Your task to perform on an android device: clear all cookies in the chrome app Image 0: 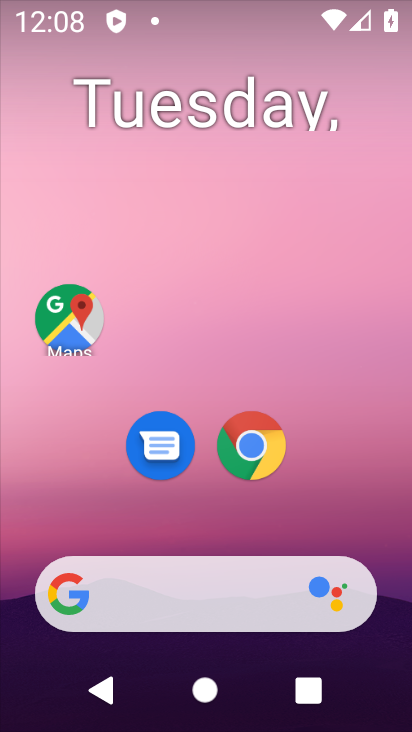
Step 0: drag from (385, 543) to (386, 121)
Your task to perform on an android device: clear all cookies in the chrome app Image 1: 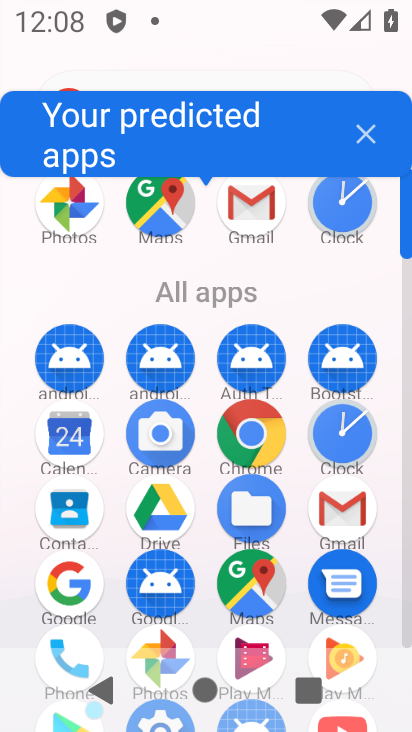
Step 1: click (275, 453)
Your task to perform on an android device: clear all cookies in the chrome app Image 2: 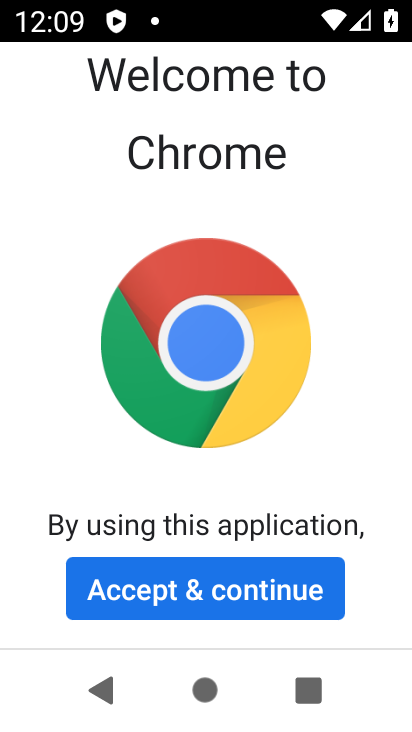
Step 2: click (245, 595)
Your task to perform on an android device: clear all cookies in the chrome app Image 3: 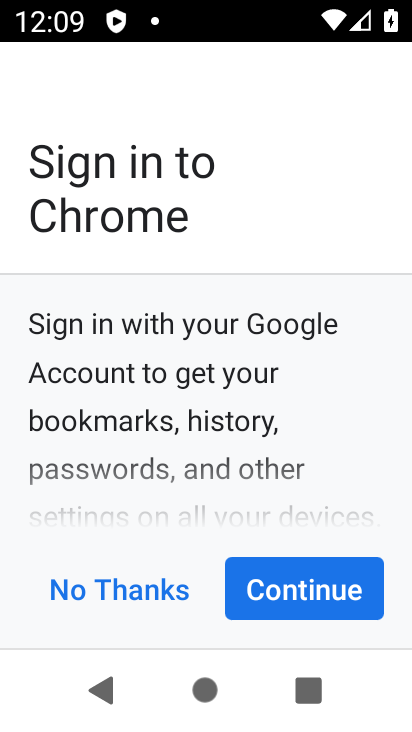
Step 3: click (245, 595)
Your task to perform on an android device: clear all cookies in the chrome app Image 4: 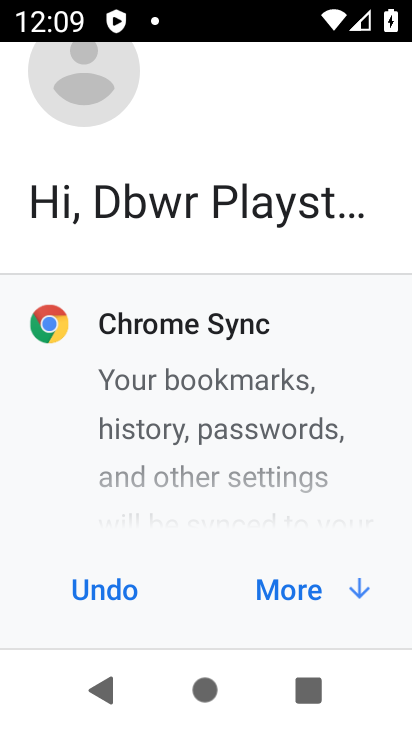
Step 4: click (272, 590)
Your task to perform on an android device: clear all cookies in the chrome app Image 5: 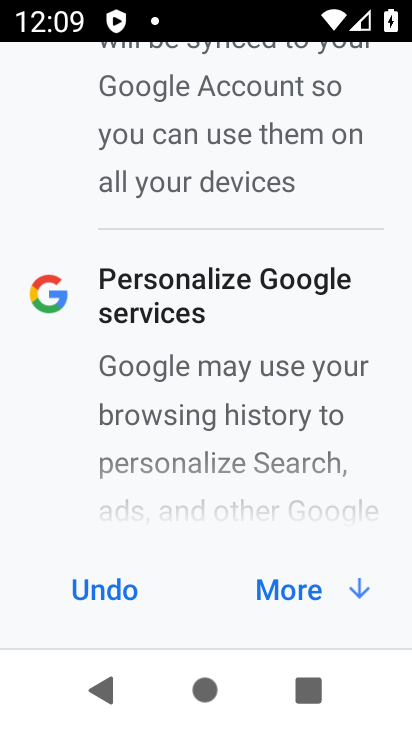
Step 5: click (272, 590)
Your task to perform on an android device: clear all cookies in the chrome app Image 6: 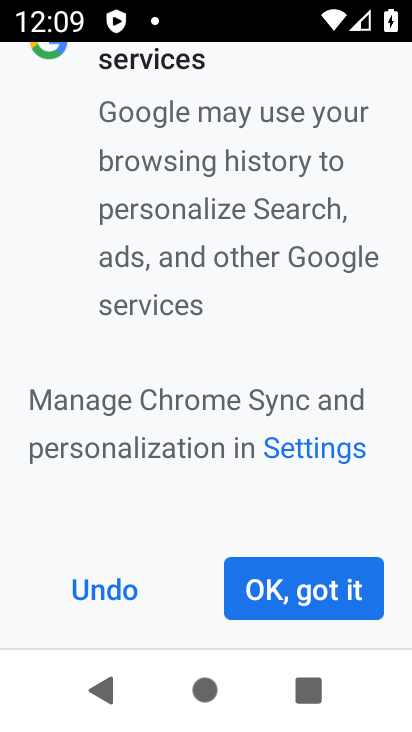
Step 6: click (272, 590)
Your task to perform on an android device: clear all cookies in the chrome app Image 7: 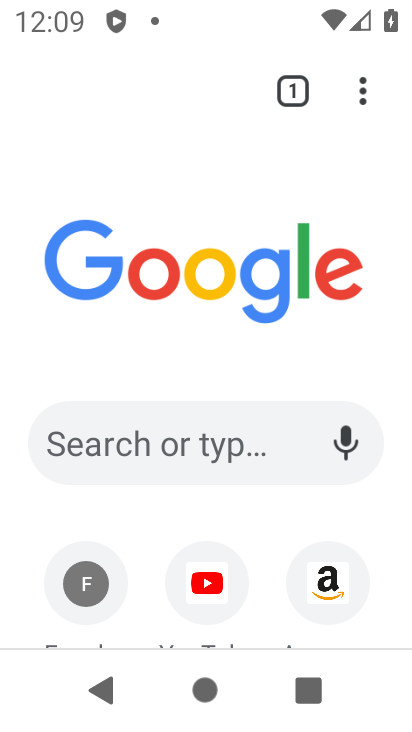
Step 7: click (364, 100)
Your task to perform on an android device: clear all cookies in the chrome app Image 8: 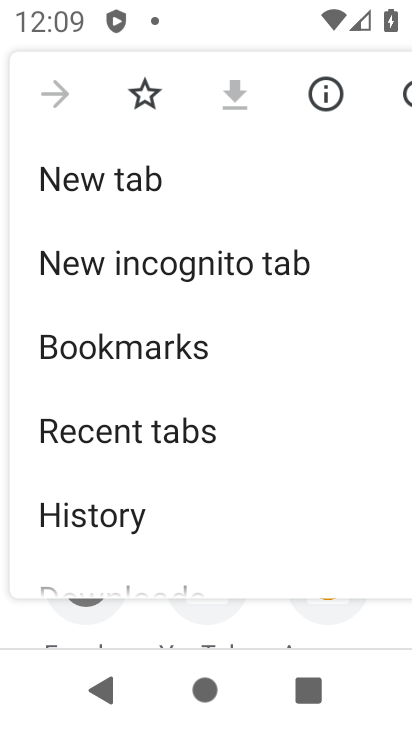
Step 8: drag from (321, 487) to (328, 355)
Your task to perform on an android device: clear all cookies in the chrome app Image 9: 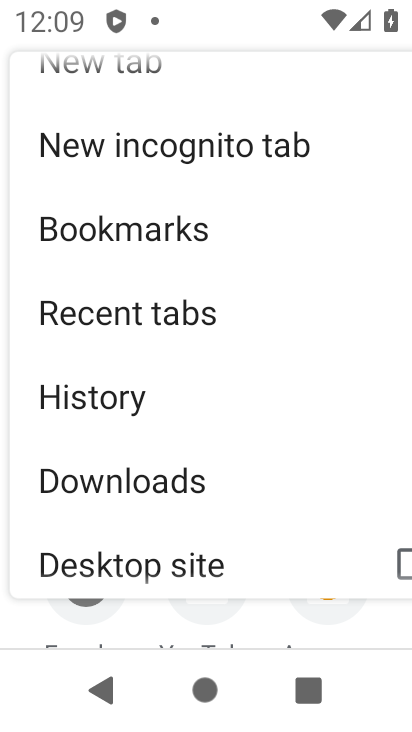
Step 9: drag from (312, 540) to (316, 368)
Your task to perform on an android device: clear all cookies in the chrome app Image 10: 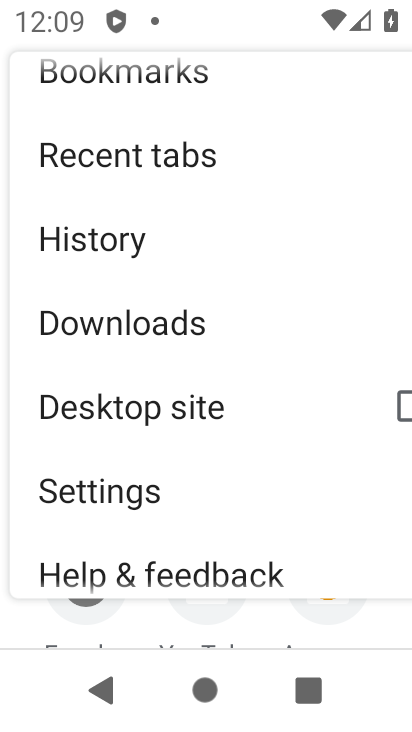
Step 10: drag from (291, 512) to (296, 356)
Your task to perform on an android device: clear all cookies in the chrome app Image 11: 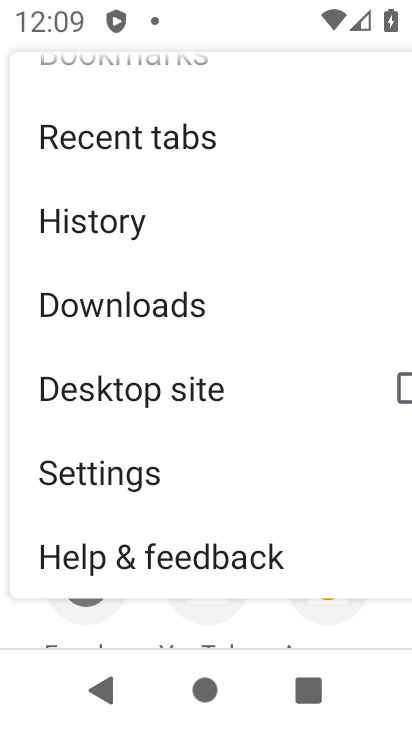
Step 11: click (131, 479)
Your task to perform on an android device: clear all cookies in the chrome app Image 12: 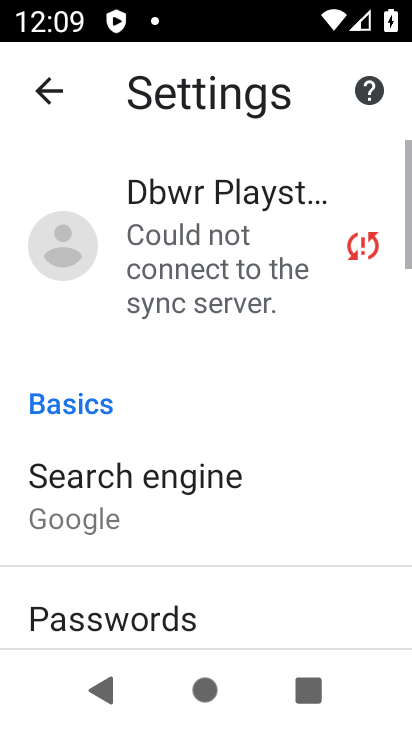
Step 12: drag from (296, 556) to (311, 461)
Your task to perform on an android device: clear all cookies in the chrome app Image 13: 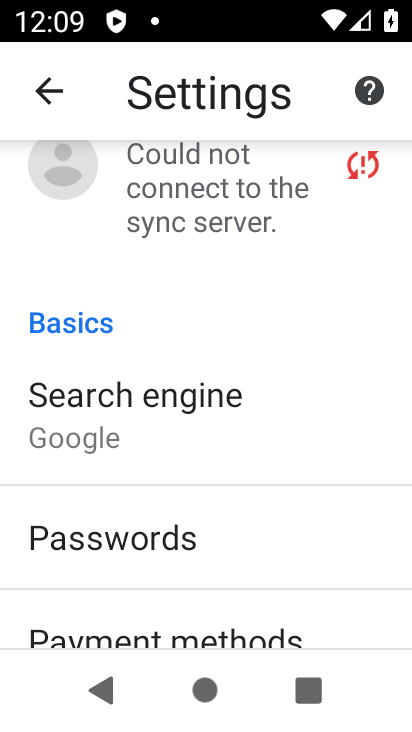
Step 13: drag from (311, 525) to (322, 449)
Your task to perform on an android device: clear all cookies in the chrome app Image 14: 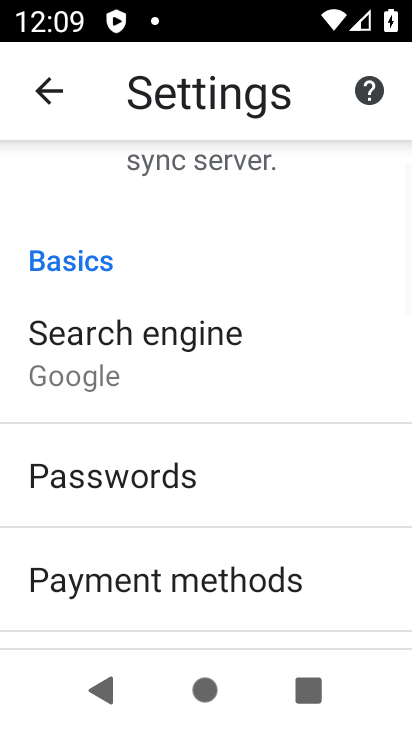
Step 14: drag from (353, 568) to (362, 474)
Your task to perform on an android device: clear all cookies in the chrome app Image 15: 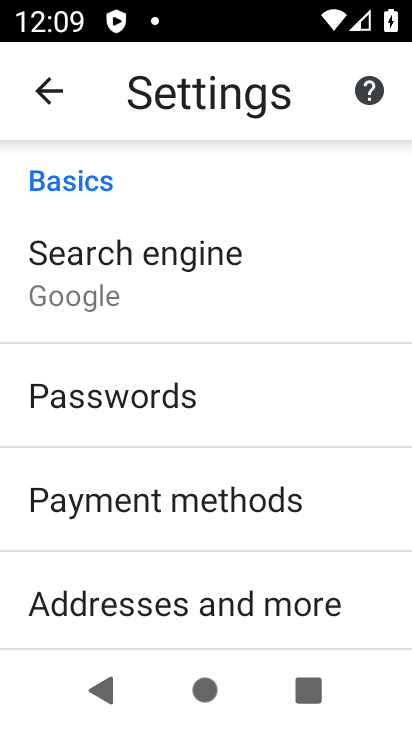
Step 15: drag from (363, 571) to (358, 482)
Your task to perform on an android device: clear all cookies in the chrome app Image 16: 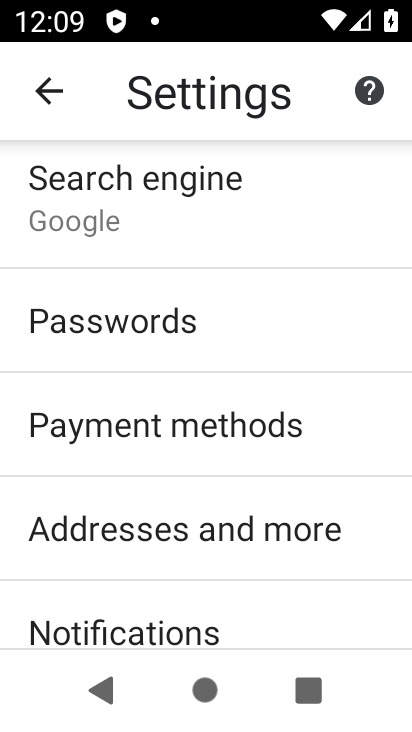
Step 16: drag from (380, 594) to (368, 487)
Your task to perform on an android device: clear all cookies in the chrome app Image 17: 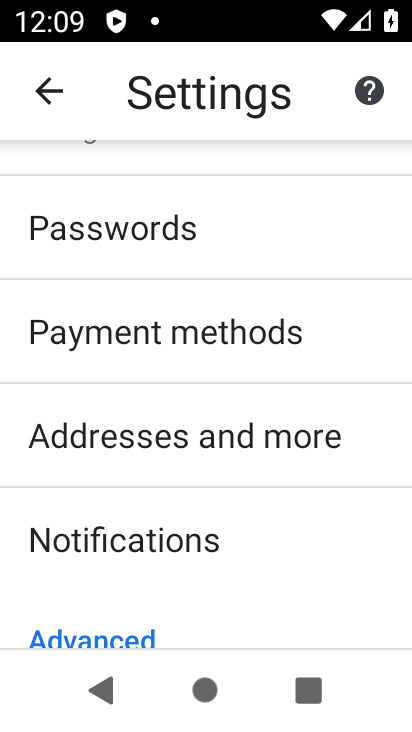
Step 17: drag from (340, 616) to (352, 531)
Your task to perform on an android device: clear all cookies in the chrome app Image 18: 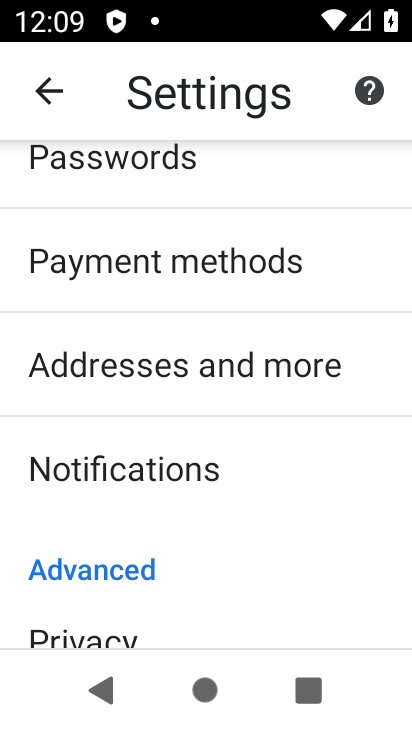
Step 18: drag from (347, 596) to (362, 489)
Your task to perform on an android device: clear all cookies in the chrome app Image 19: 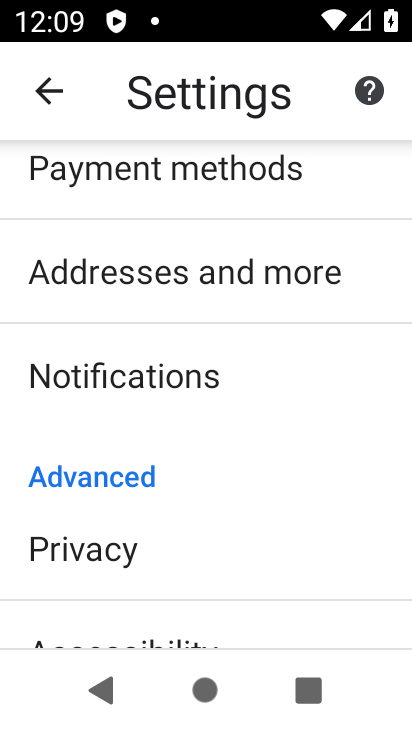
Step 19: drag from (336, 606) to (333, 509)
Your task to perform on an android device: clear all cookies in the chrome app Image 20: 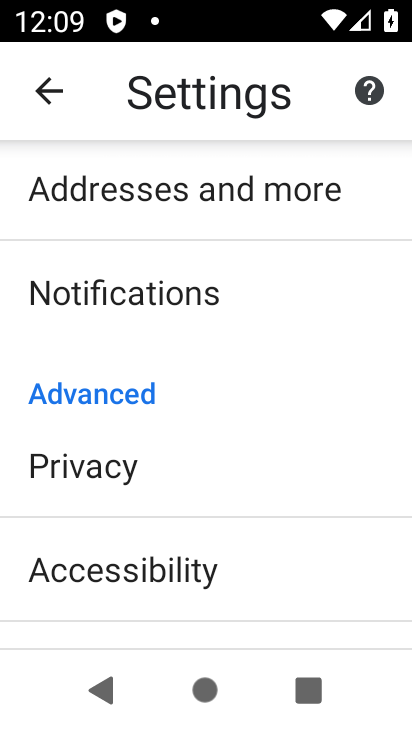
Step 20: drag from (354, 609) to (349, 514)
Your task to perform on an android device: clear all cookies in the chrome app Image 21: 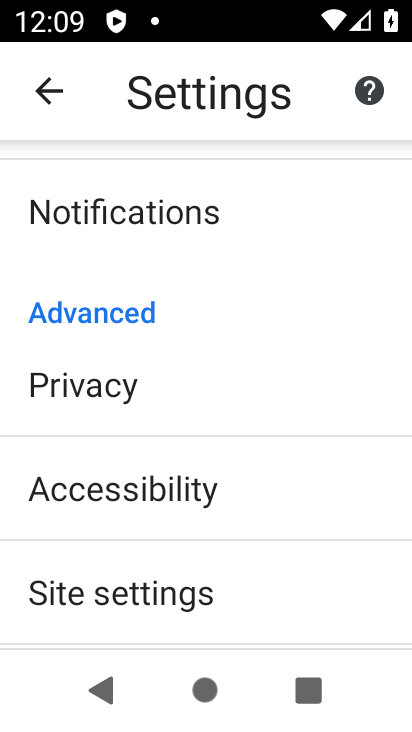
Step 21: drag from (321, 602) to (318, 505)
Your task to perform on an android device: clear all cookies in the chrome app Image 22: 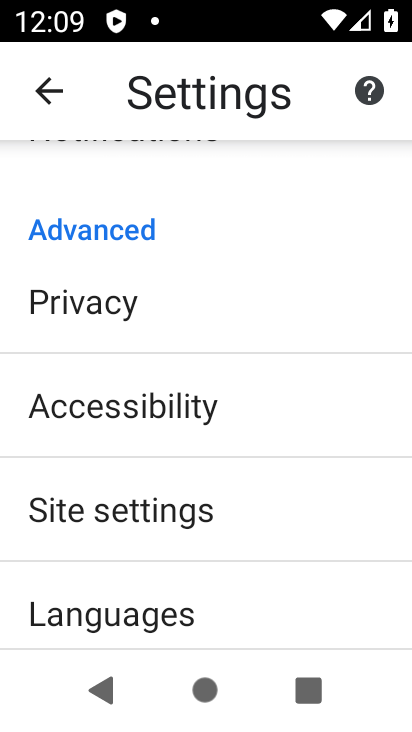
Step 22: click (236, 323)
Your task to perform on an android device: clear all cookies in the chrome app Image 23: 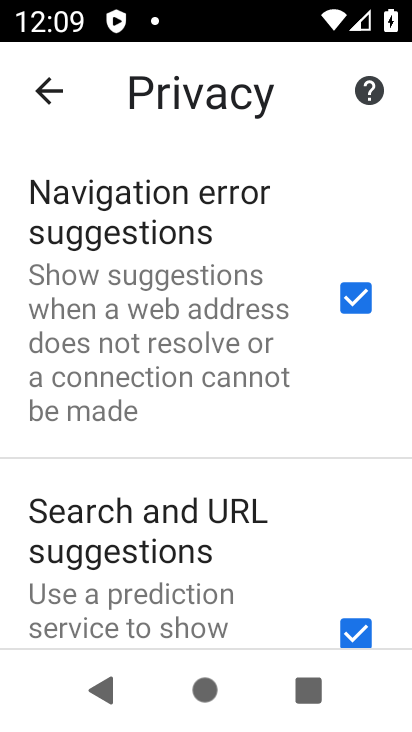
Step 23: drag from (315, 525) to (320, 419)
Your task to perform on an android device: clear all cookies in the chrome app Image 24: 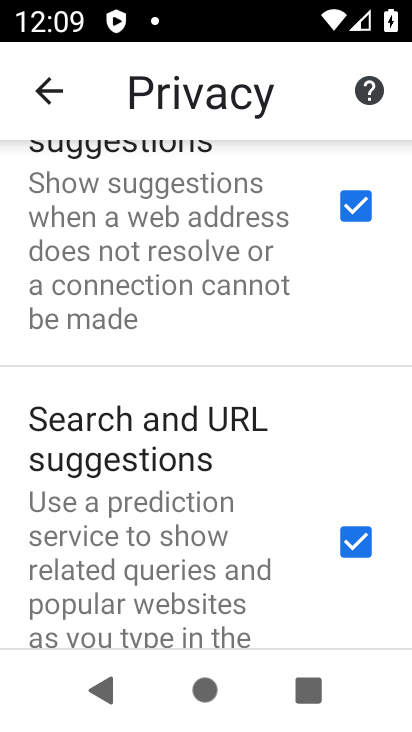
Step 24: drag from (297, 524) to (292, 432)
Your task to perform on an android device: clear all cookies in the chrome app Image 25: 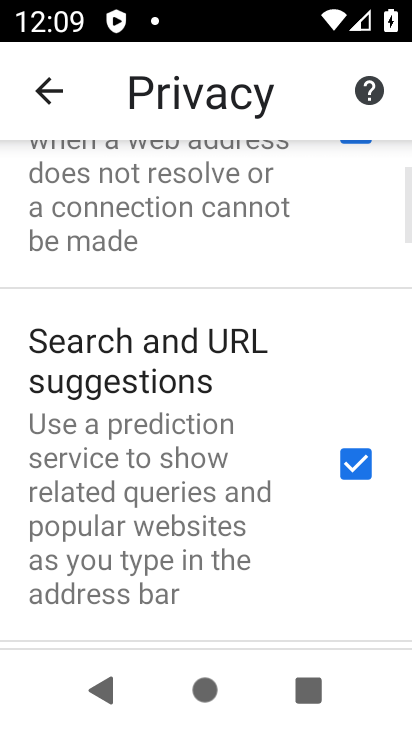
Step 25: drag from (285, 571) to (292, 473)
Your task to perform on an android device: clear all cookies in the chrome app Image 26: 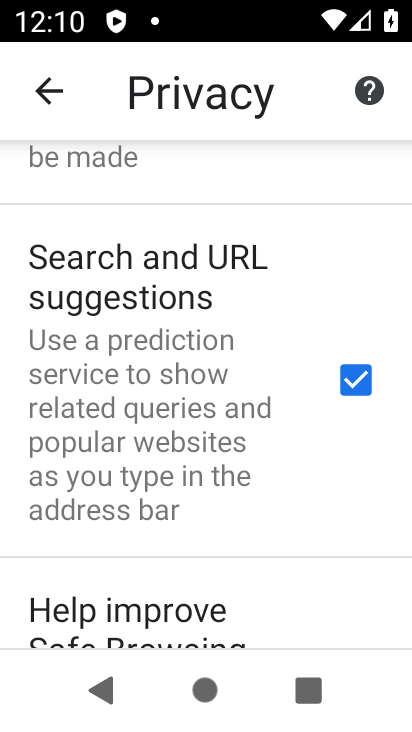
Step 26: drag from (288, 572) to (282, 447)
Your task to perform on an android device: clear all cookies in the chrome app Image 27: 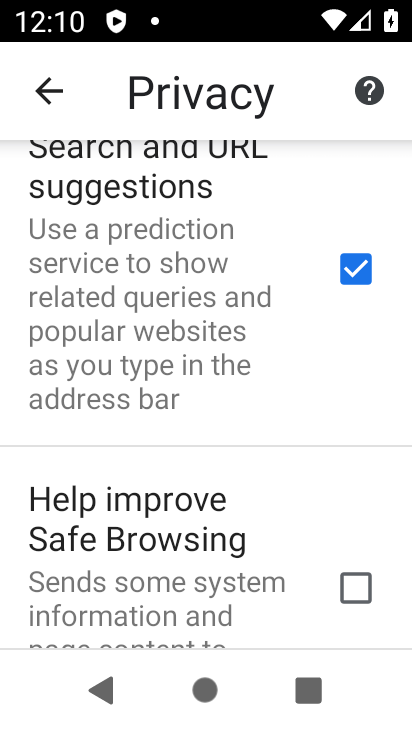
Step 27: drag from (279, 603) to (275, 462)
Your task to perform on an android device: clear all cookies in the chrome app Image 28: 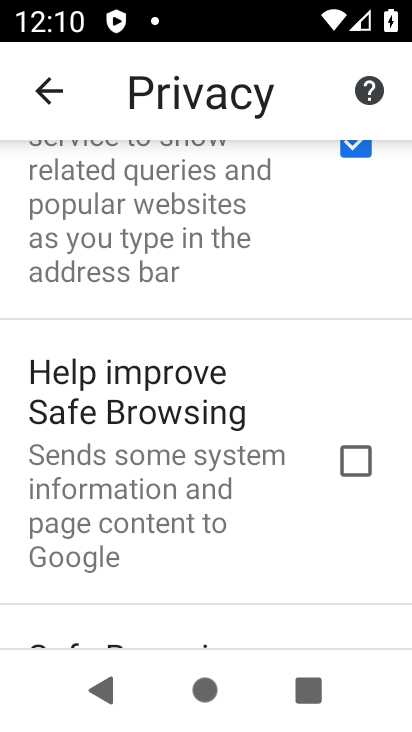
Step 28: drag from (279, 562) to (283, 423)
Your task to perform on an android device: clear all cookies in the chrome app Image 29: 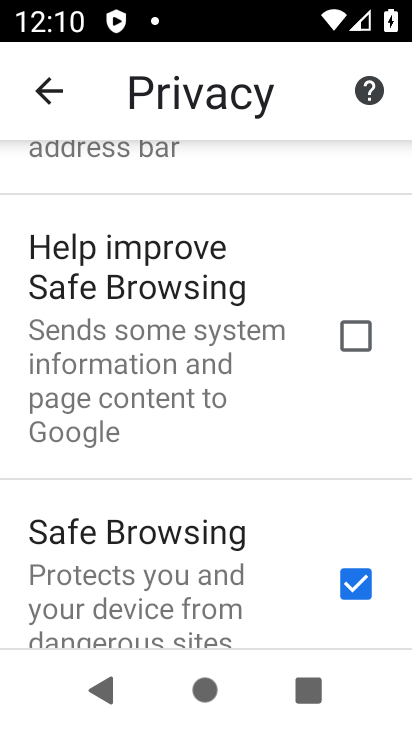
Step 29: drag from (290, 614) to (299, 493)
Your task to perform on an android device: clear all cookies in the chrome app Image 30: 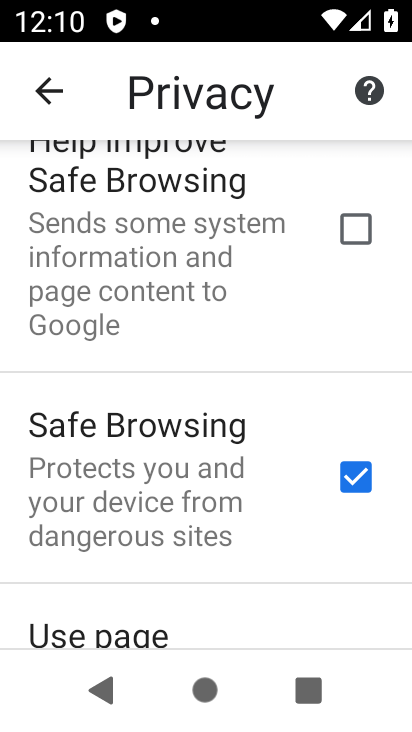
Step 30: drag from (302, 602) to (294, 458)
Your task to perform on an android device: clear all cookies in the chrome app Image 31: 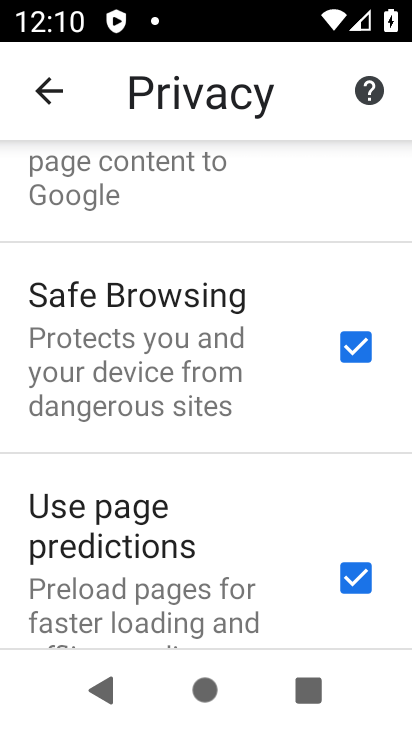
Step 31: drag from (267, 613) to (281, 493)
Your task to perform on an android device: clear all cookies in the chrome app Image 32: 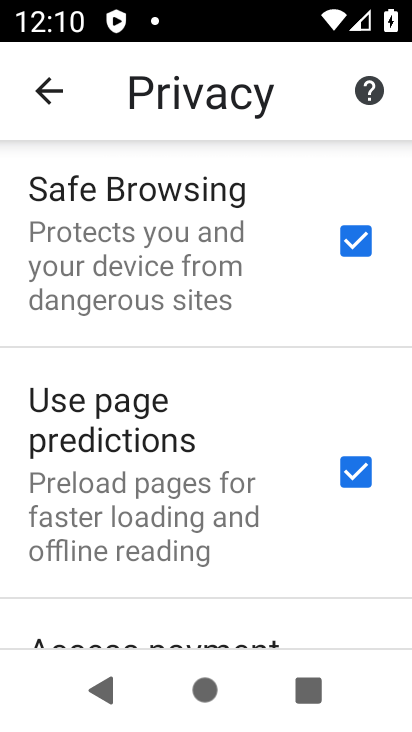
Step 32: drag from (304, 599) to (308, 453)
Your task to perform on an android device: clear all cookies in the chrome app Image 33: 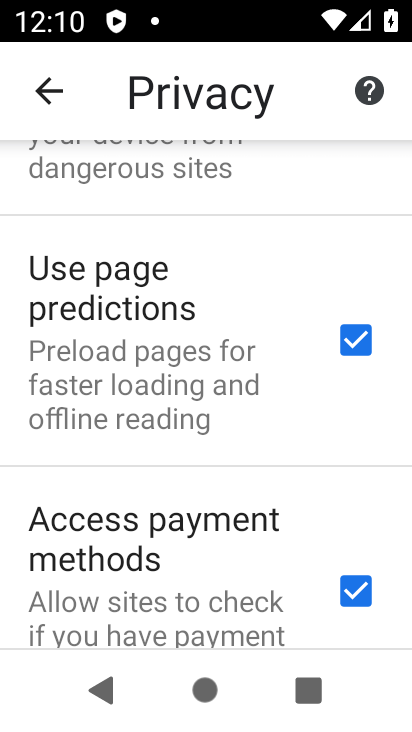
Step 33: drag from (303, 610) to (318, 443)
Your task to perform on an android device: clear all cookies in the chrome app Image 34: 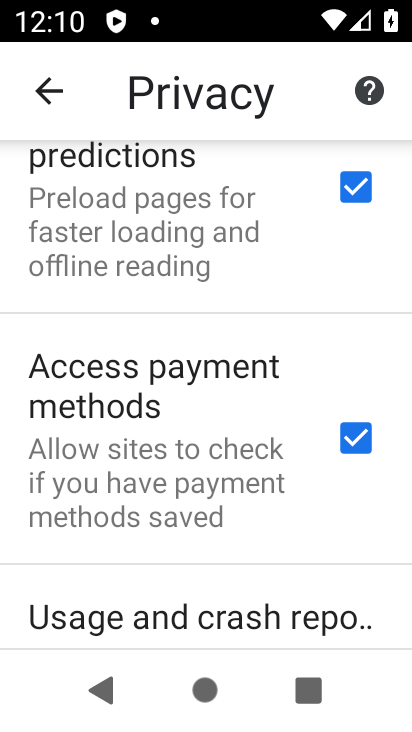
Step 34: drag from (292, 568) to (300, 435)
Your task to perform on an android device: clear all cookies in the chrome app Image 35: 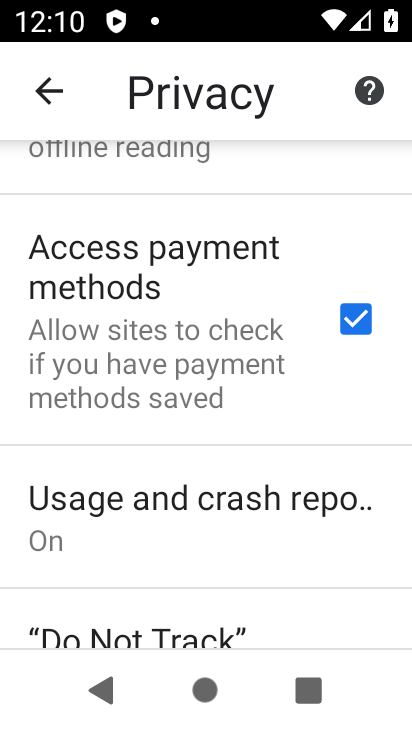
Step 35: drag from (312, 588) to (325, 457)
Your task to perform on an android device: clear all cookies in the chrome app Image 36: 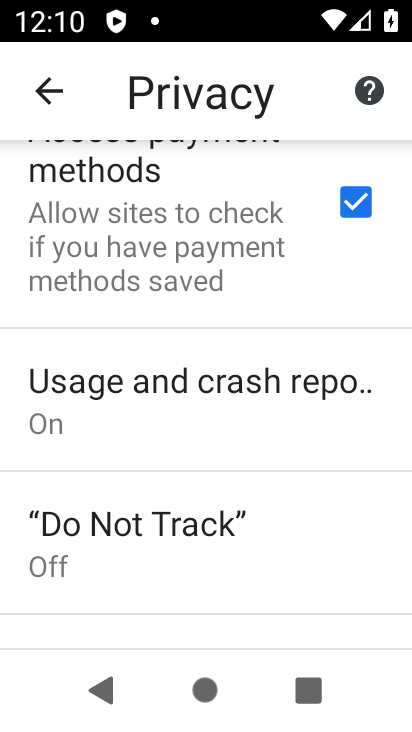
Step 36: drag from (322, 607) to (333, 461)
Your task to perform on an android device: clear all cookies in the chrome app Image 37: 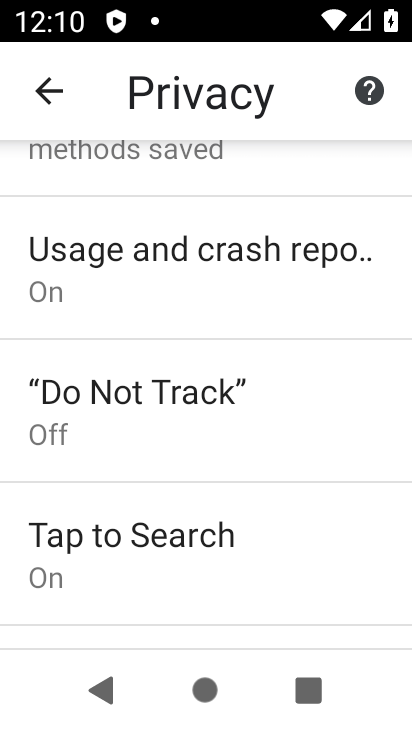
Step 37: drag from (336, 586) to (332, 417)
Your task to perform on an android device: clear all cookies in the chrome app Image 38: 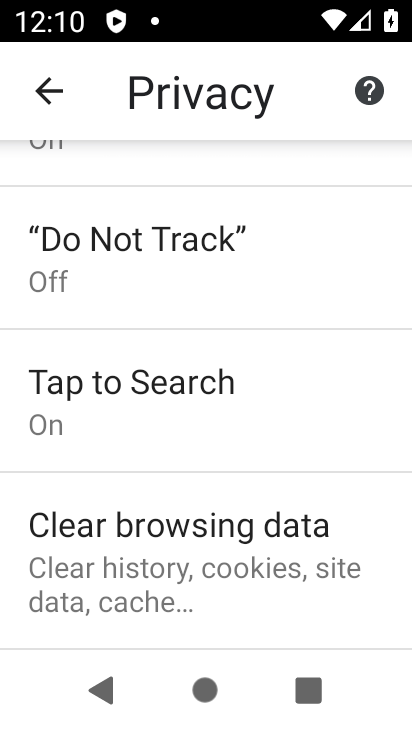
Step 38: click (315, 561)
Your task to perform on an android device: clear all cookies in the chrome app Image 39: 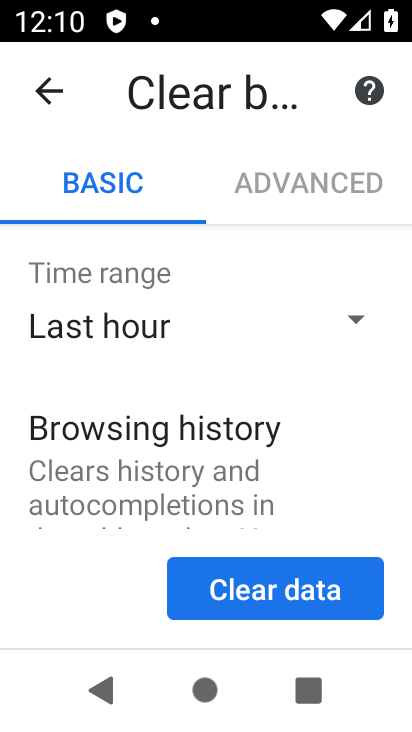
Step 39: click (281, 606)
Your task to perform on an android device: clear all cookies in the chrome app Image 40: 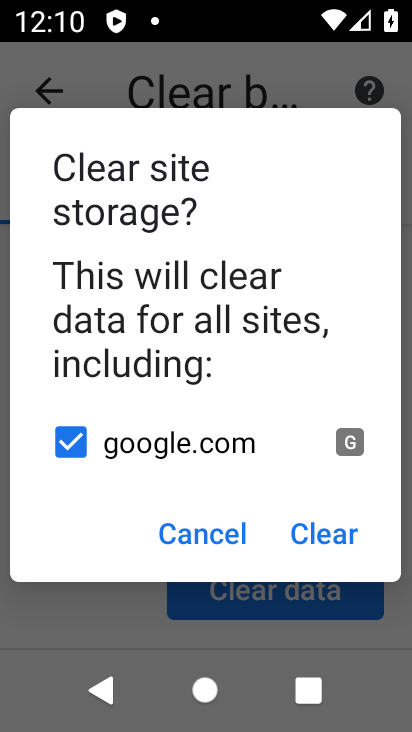
Step 40: click (316, 543)
Your task to perform on an android device: clear all cookies in the chrome app Image 41: 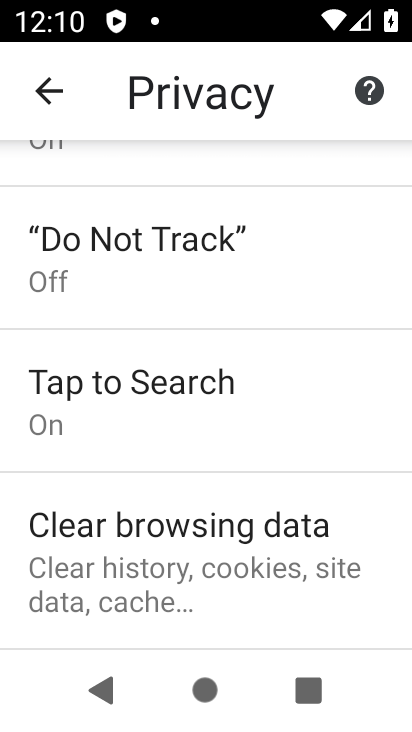
Step 41: task complete